Your task to perform on an android device: check google app version Image 0: 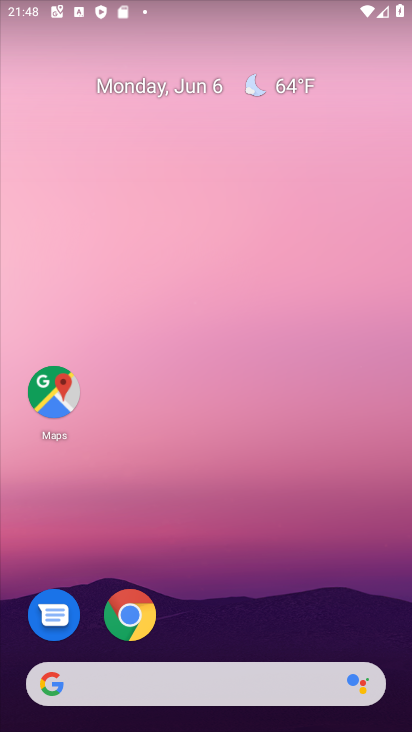
Step 0: drag from (397, 711) to (378, 175)
Your task to perform on an android device: check google app version Image 1: 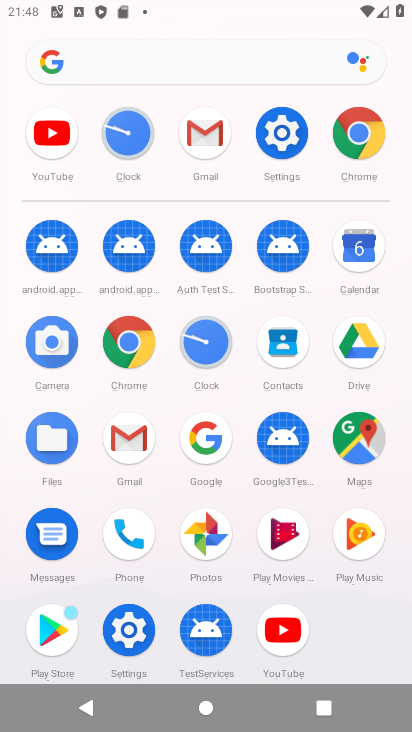
Step 1: click (200, 434)
Your task to perform on an android device: check google app version Image 2: 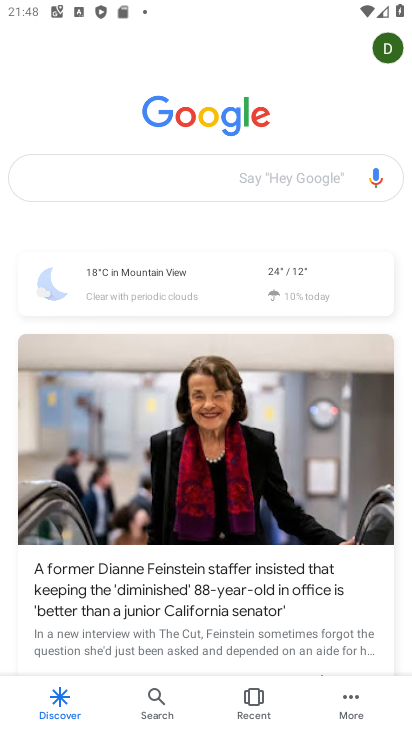
Step 2: click (328, 699)
Your task to perform on an android device: check google app version Image 3: 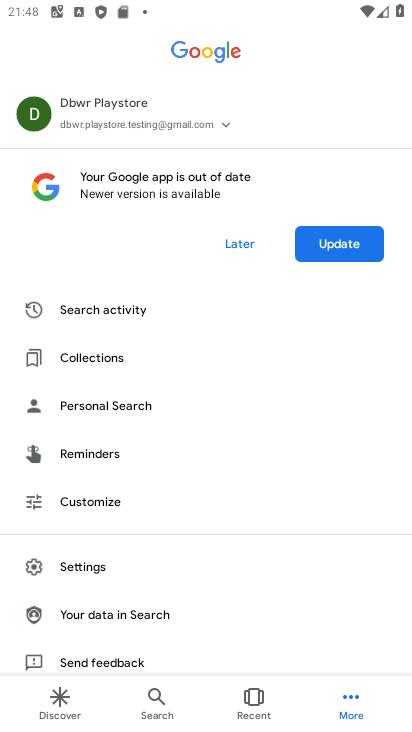
Step 3: click (80, 562)
Your task to perform on an android device: check google app version Image 4: 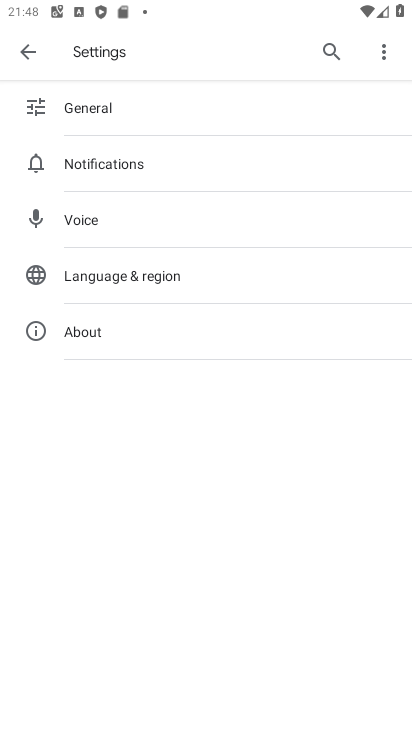
Step 4: click (89, 330)
Your task to perform on an android device: check google app version Image 5: 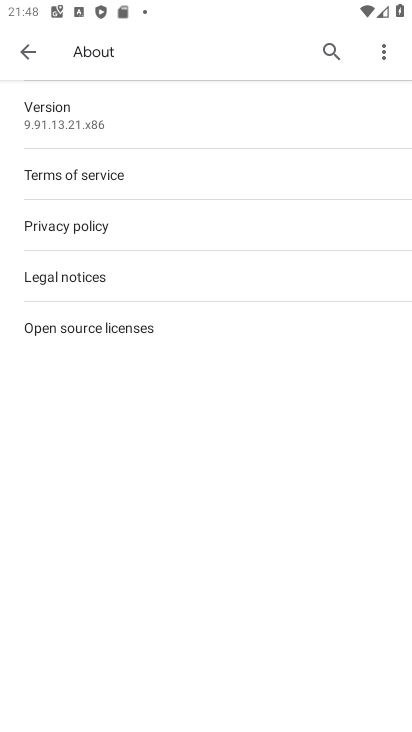
Step 5: click (81, 112)
Your task to perform on an android device: check google app version Image 6: 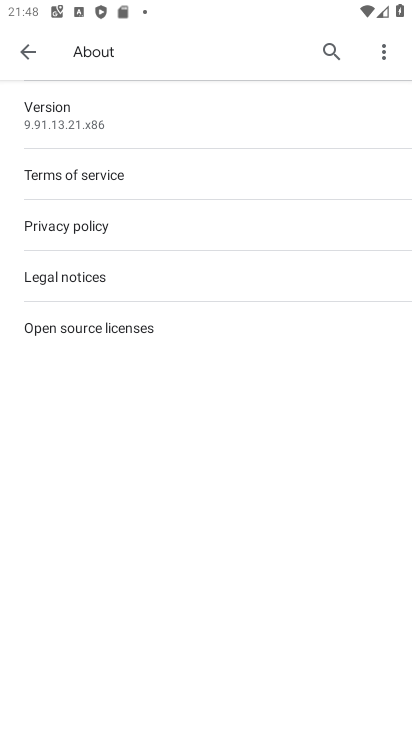
Step 6: task complete